Your task to perform on an android device: Turn on the flashlight Image 0: 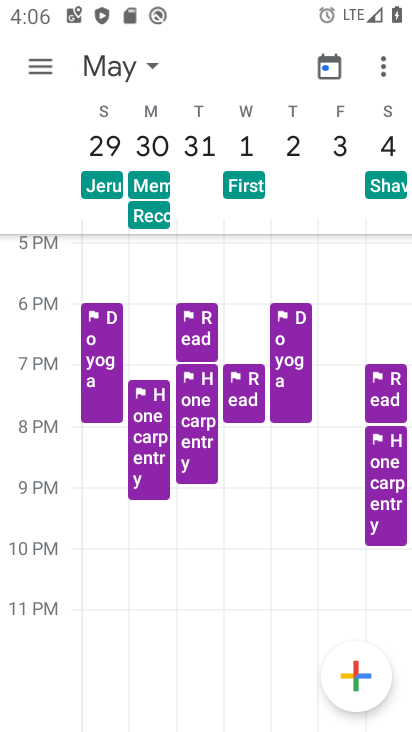
Step 0: press home button
Your task to perform on an android device: Turn on the flashlight Image 1: 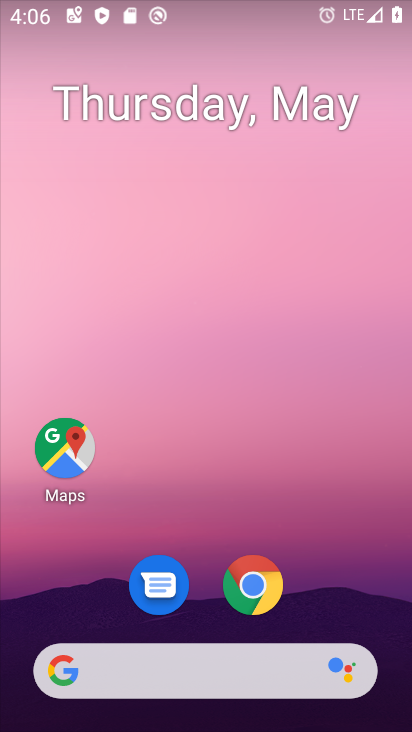
Step 1: drag from (265, 462) to (246, 0)
Your task to perform on an android device: Turn on the flashlight Image 2: 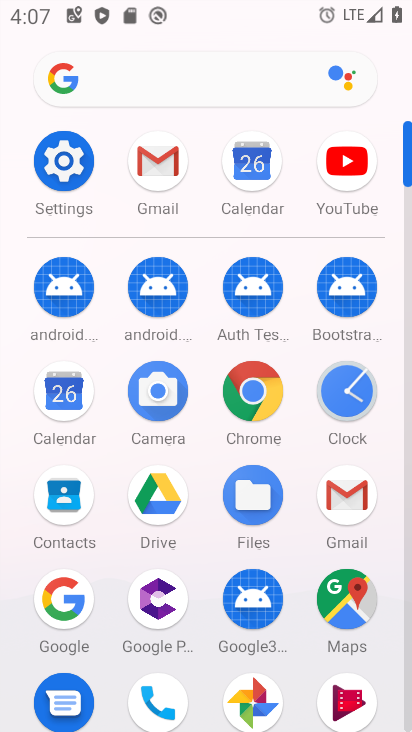
Step 2: click (75, 160)
Your task to perform on an android device: Turn on the flashlight Image 3: 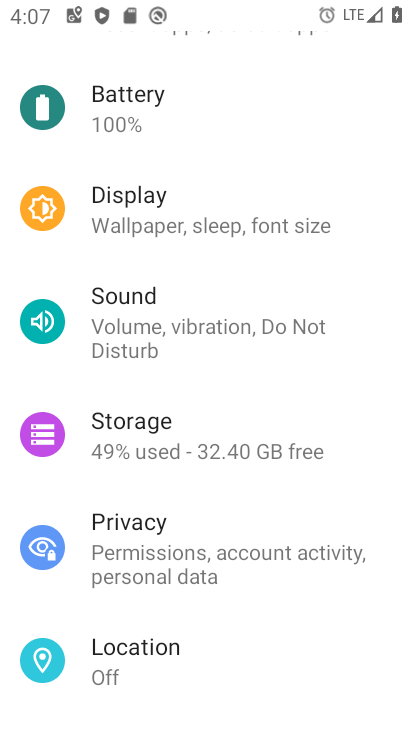
Step 3: drag from (183, 122) to (225, 666)
Your task to perform on an android device: Turn on the flashlight Image 4: 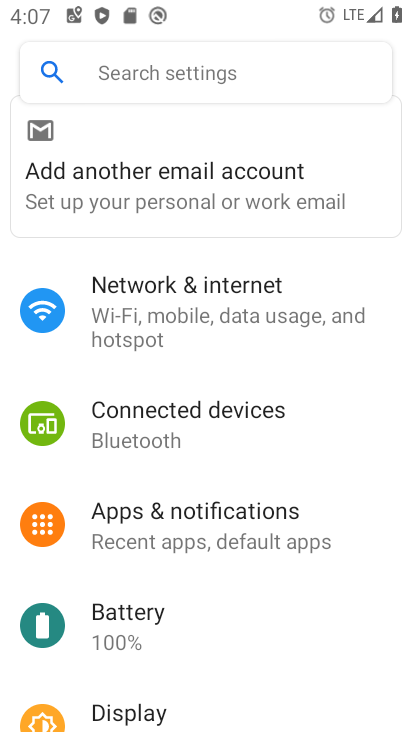
Step 4: drag from (217, 228) to (264, 666)
Your task to perform on an android device: Turn on the flashlight Image 5: 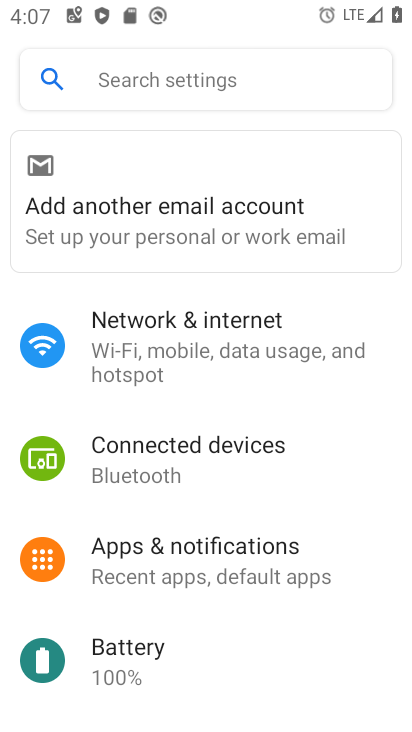
Step 5: click (229, 71)
Your task to perform on an android device: Turn on the flashlight Image 6: 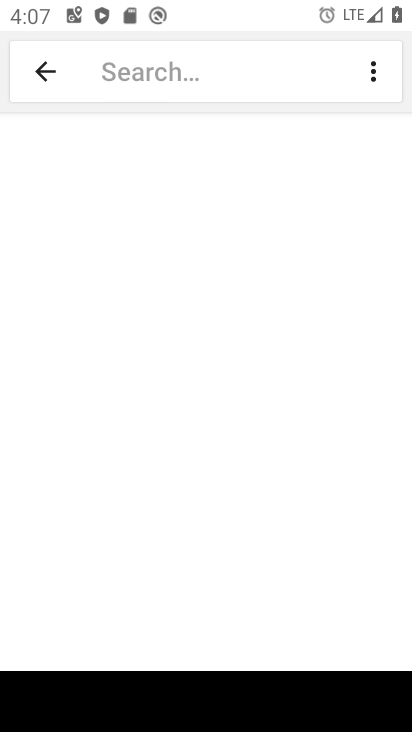
Step 6: type "Flashlight"
Your task to perform on an android device: Turn on the flashlight Image 7: 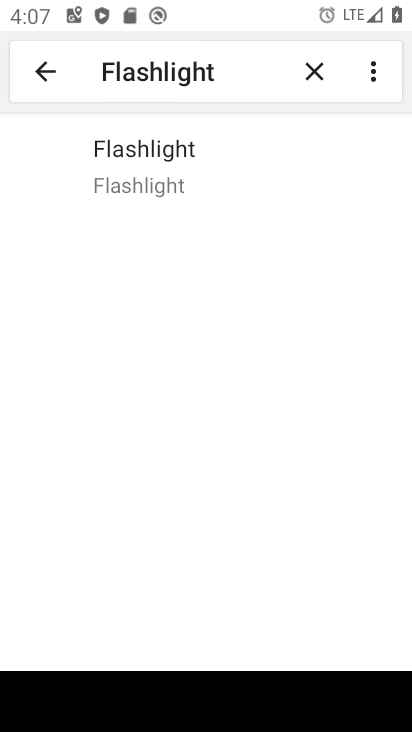
Step 7: click (158, 174)
Your task to perform on an android device: Turn on the flashlight Image 8: 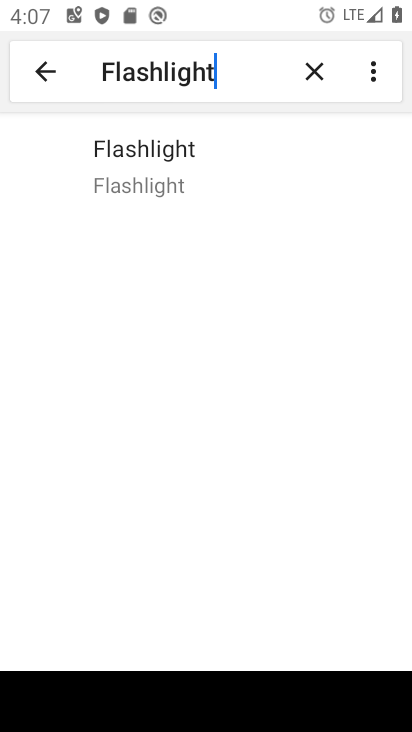
Step 8: task complete